Your task to perform on an android device: Open the Play Movies app and select the watchlist tab. Image 0: 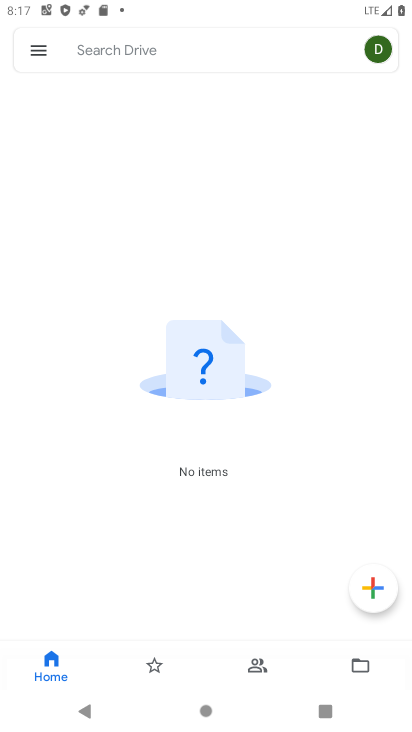
Step 0: press home button
Your task to perform on an android device: Open the Play Movies app and select the watchlist tab. Image 1: 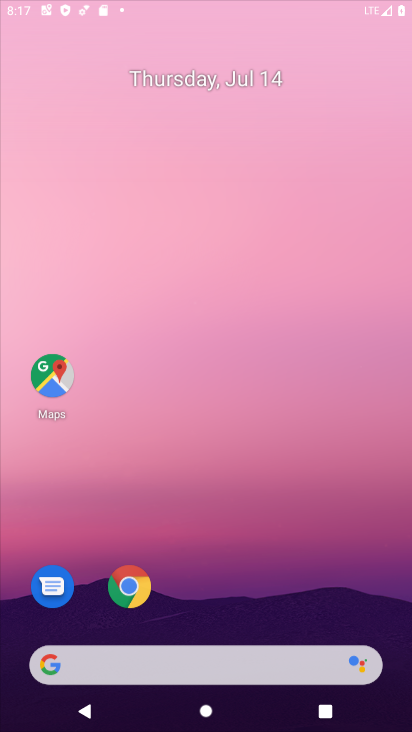
Step 1: drag from (365, 684) to (249, 65)
Your task to perform on an android device: Open the Play Movies app and select the watchlist tab. Image 2: 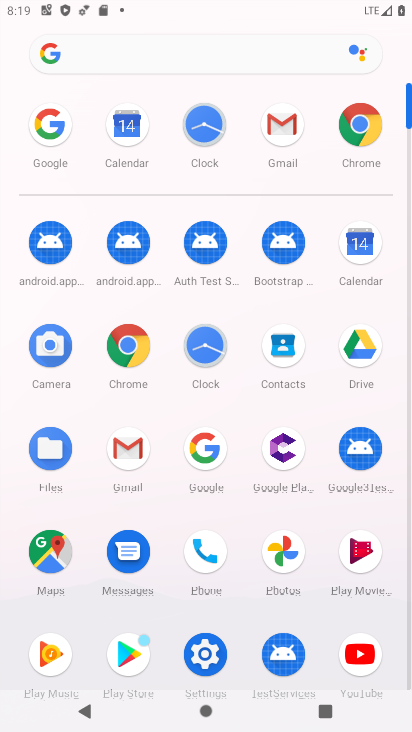
Step 2: click (353, 563)
Your task to perform on an android device: Open the Play Movies app and select the watchlist tab. Image 3: 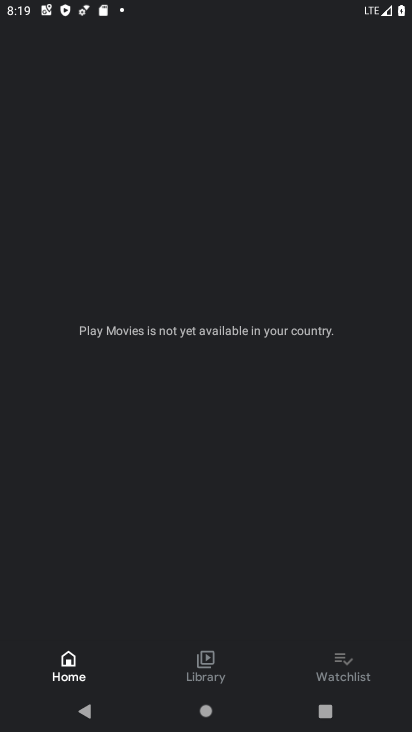
Step 3: click (324, 667)
Your task to perform on an android device: Open the Play Movies app and select the watchlist tab. Image 4: 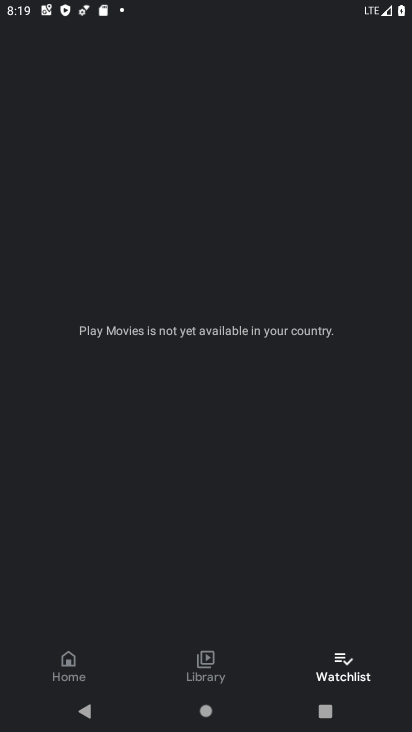
Step 4: task complete